Your task to perform on an android device: open chrome privacy settings Image 0: 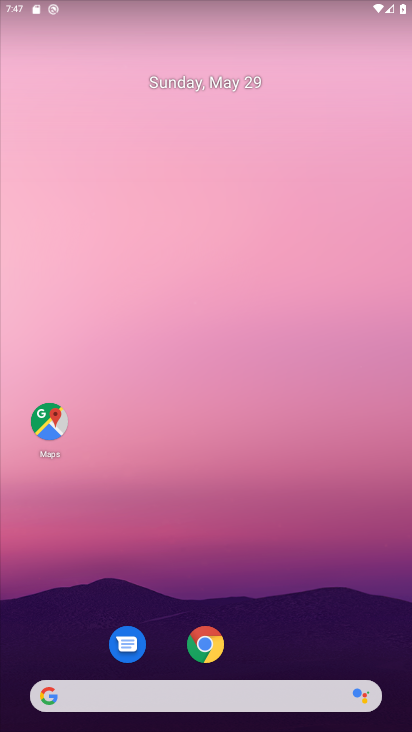
Step 0: click (209, 645)
Your task to perform on an android device: open chrome privacy settings Image 1: 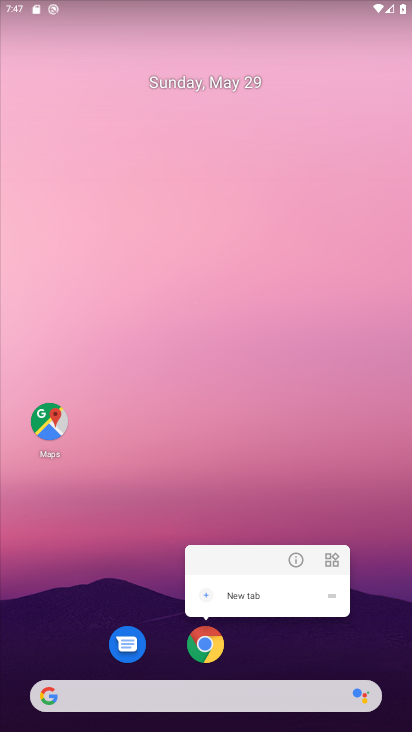
Step 1: click (209, 645)
Your task to perform on an android device: open chrome privacy settings Image 2: 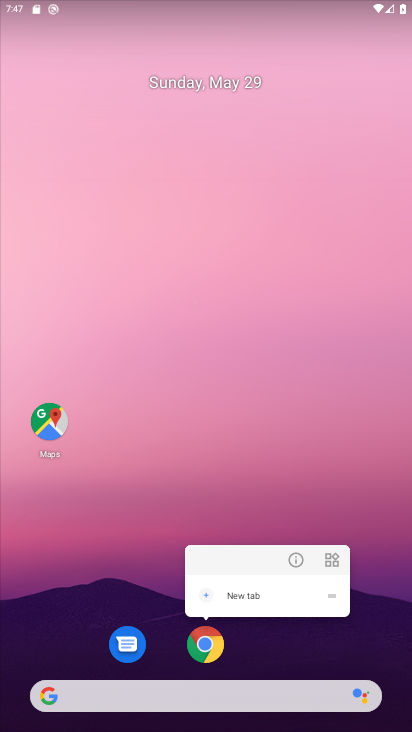
Step 2: click (209, 645)
Your task to perform on an android device: open chrome privacy settings Image 3: 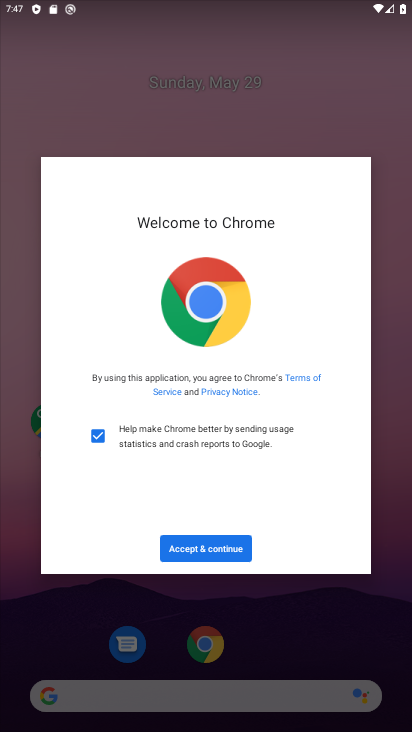
Step 3: click (185, 548)
Your task to perform on an android device: open chrome privacy settings Image 4: 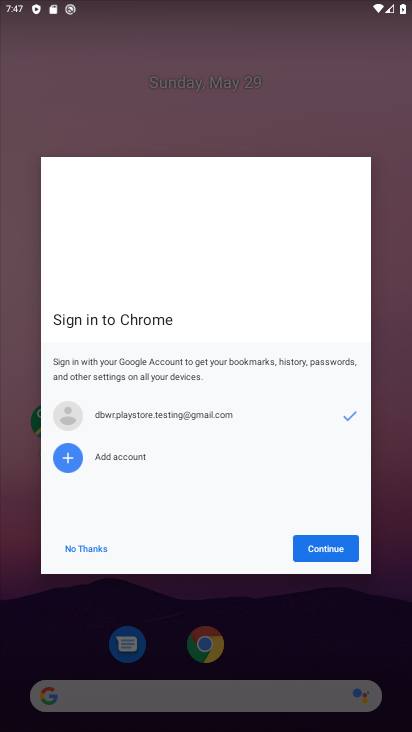
Step 4: click (319, 551)
Your task to perform on an android device: open chrome privacy settings Image 5: 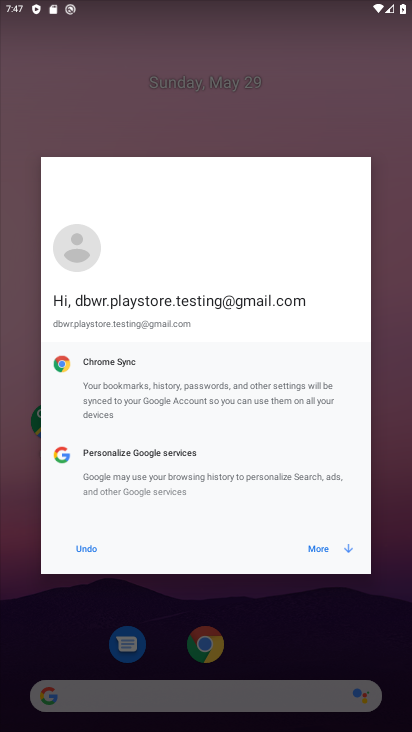
Step 5: click (319, 551)
Your task to perform on an android device: open chrome privacy settings Image 6: 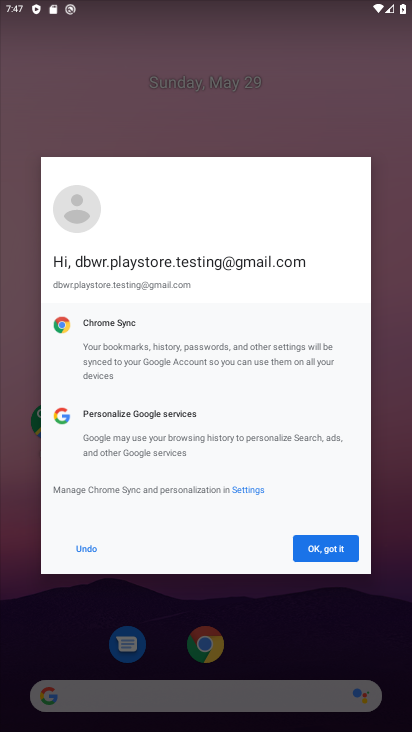
Step 6: click (319, 551)
Your task to perform on an android device: open chrome privacy settings Image 7: 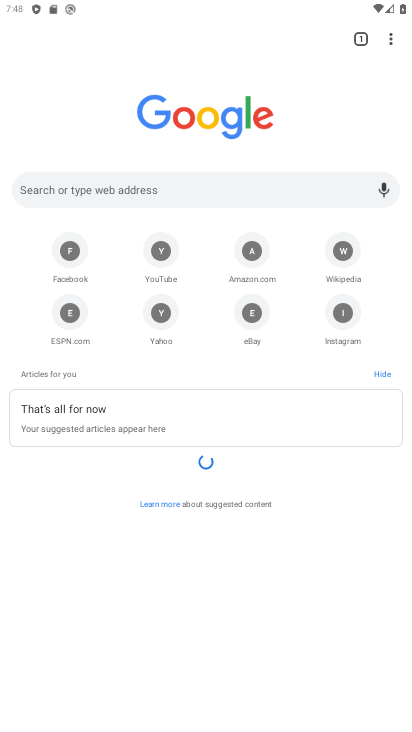
Step 7: click (389, 37)
Your task to perform on an android device: open chrome privacy settings Image 8: 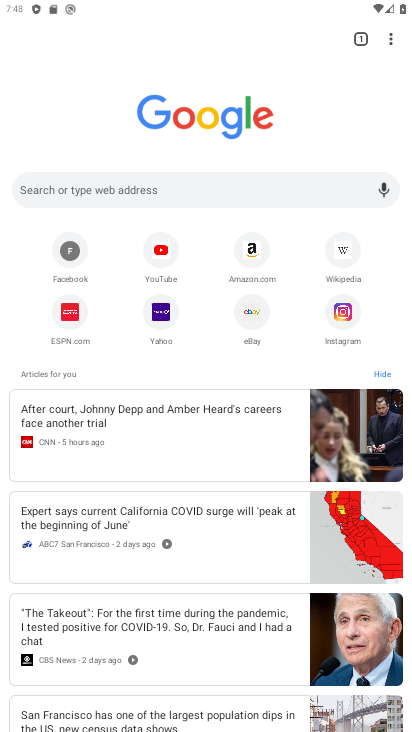
Step 8: click (389, 37)
Your task to perform on an android device: open chrome privacy settings Image 9: 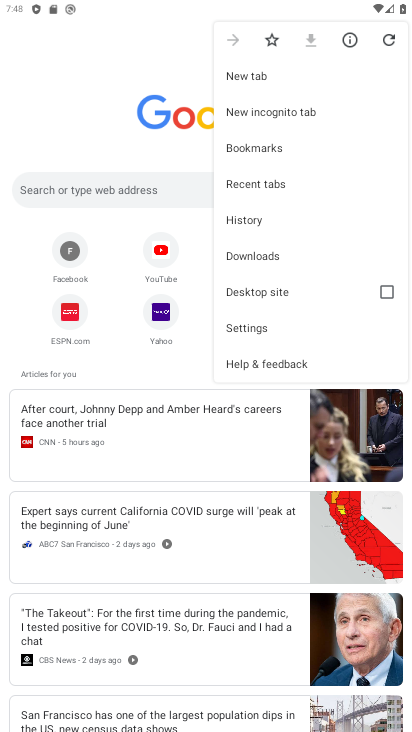
Step 9: click (296, 328)
Your task to perform on an android device: open chrome privacy settings Image 10: 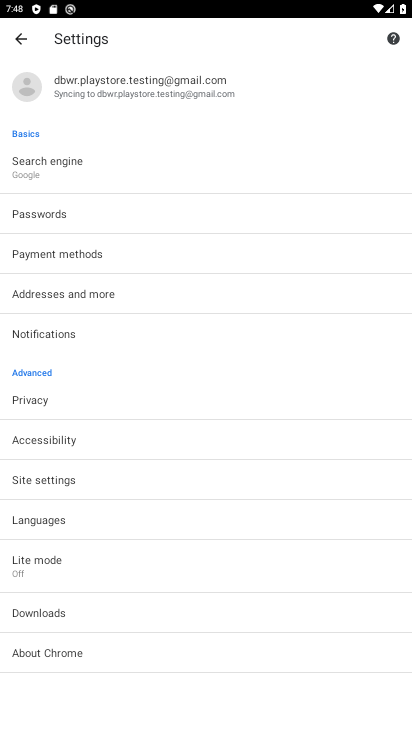
Step 10: click (76, 397)
Your task to perform on an android device: open chrome privacy settings Image 11: 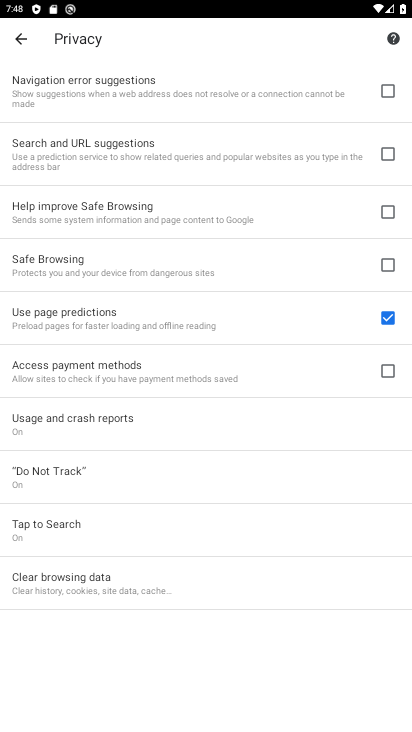
Step 11: task complete